Your task to perform on an android device: install app "Venmo" Image 0: 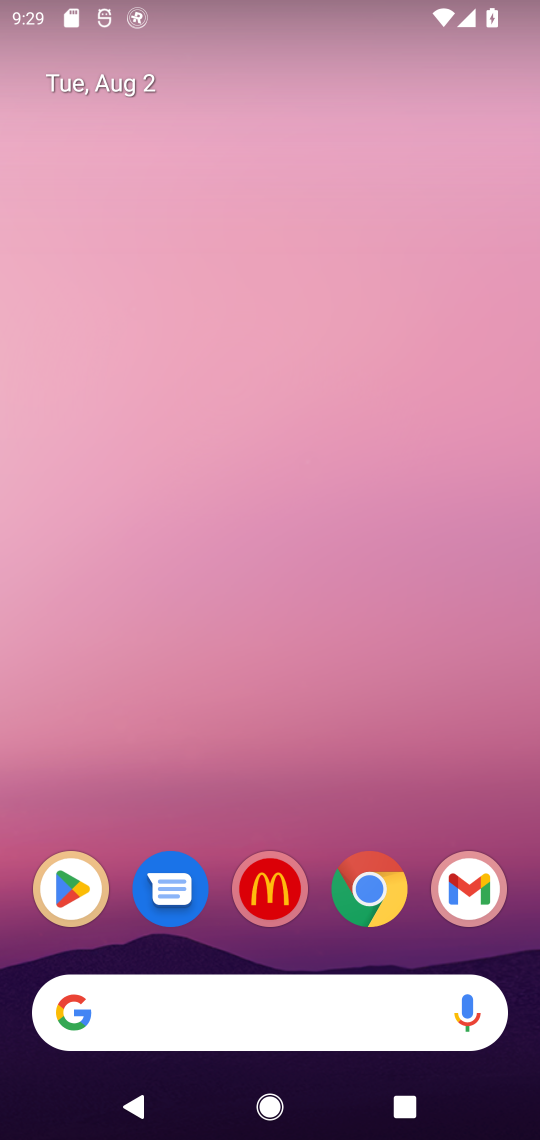
Step 0: press home button
Your task to perform on an android device: install app "Venmo" Image 1: 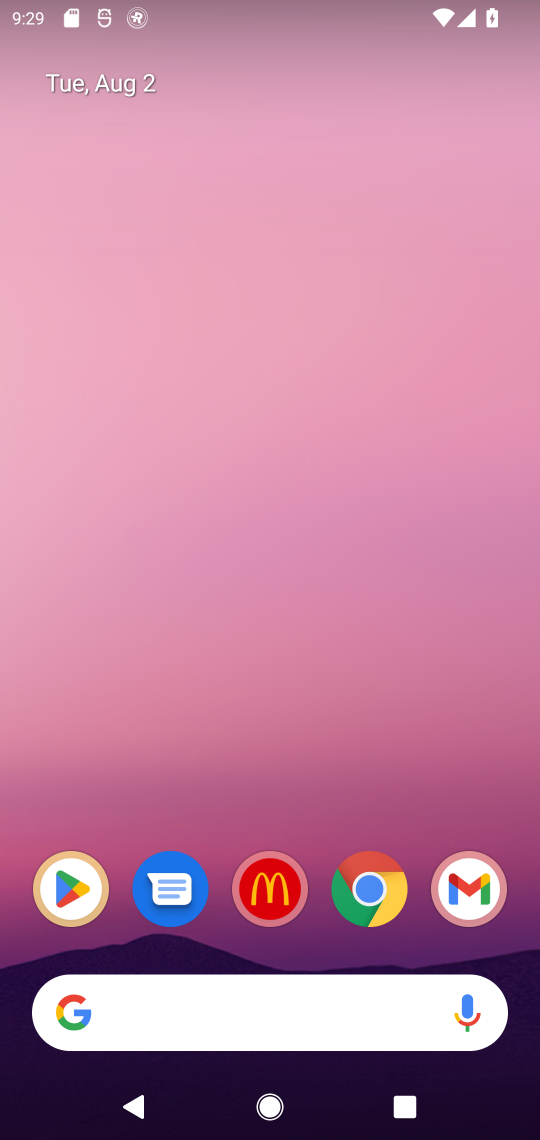
Step 1: click (62, 884)
Your task to perform on an android device: install app "Venmo" Image 2: 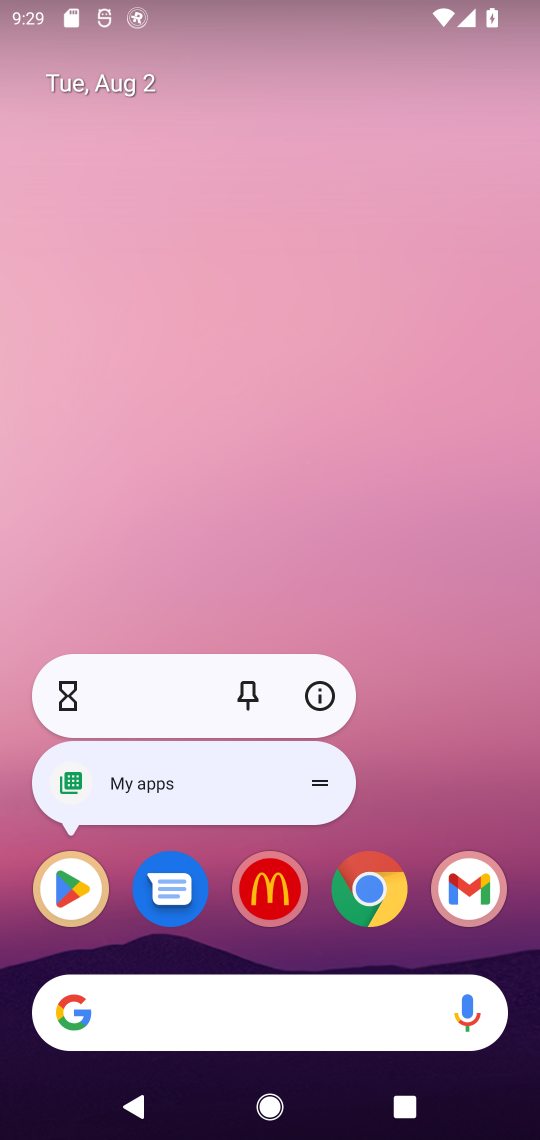
Step 2: click (69, 892)
Your task to perform on an android device: install app "Venmo" Image 3: 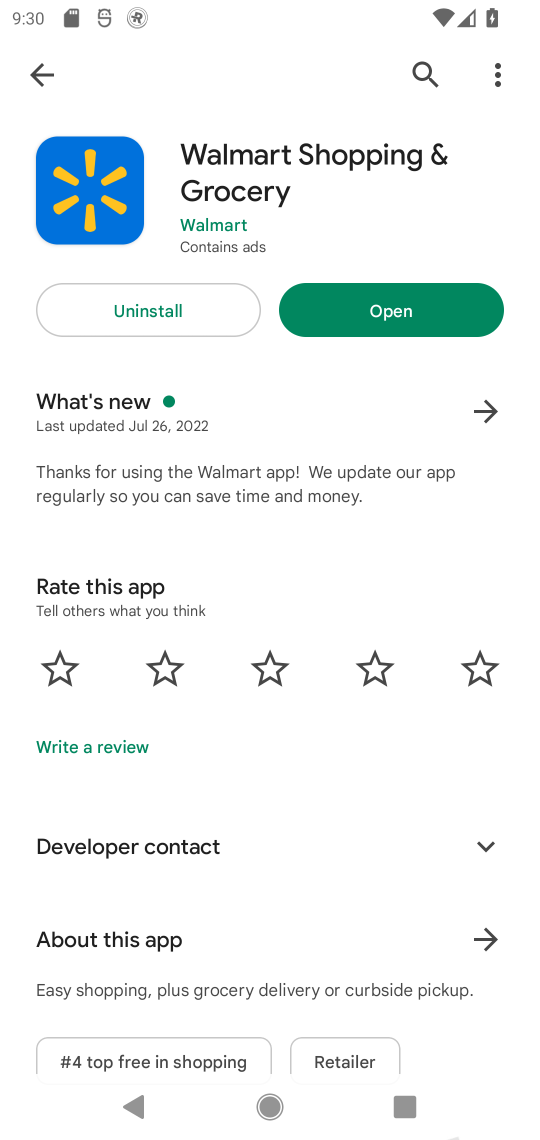
Step 3: click (421, 69)
Your task to perform on an android device: install app "Venmo" Image 4: 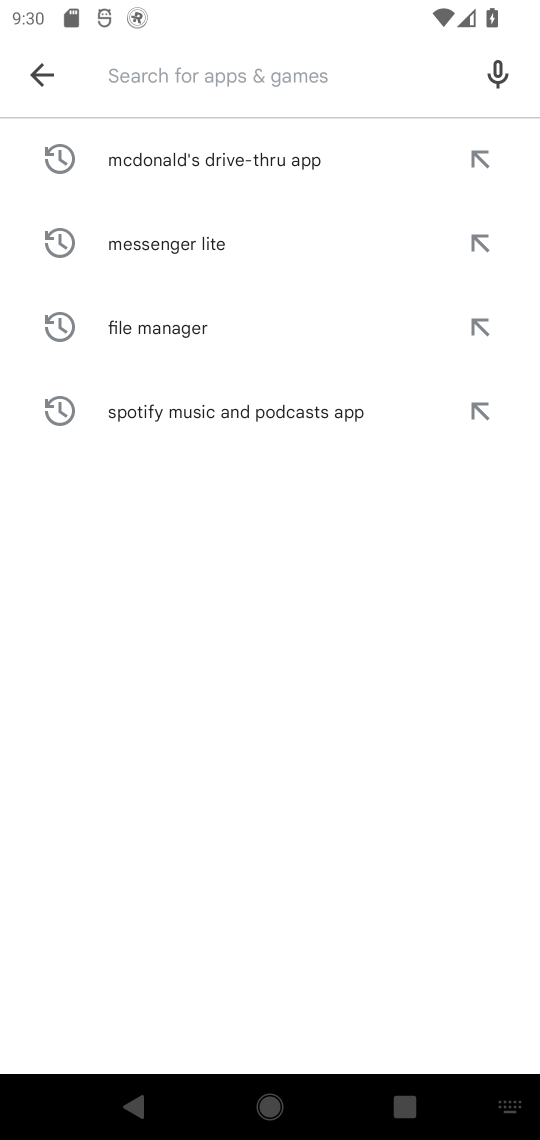
Step 4: type "Venmo"
Your task to perform on an android device: install app "Venmo" Image 5: 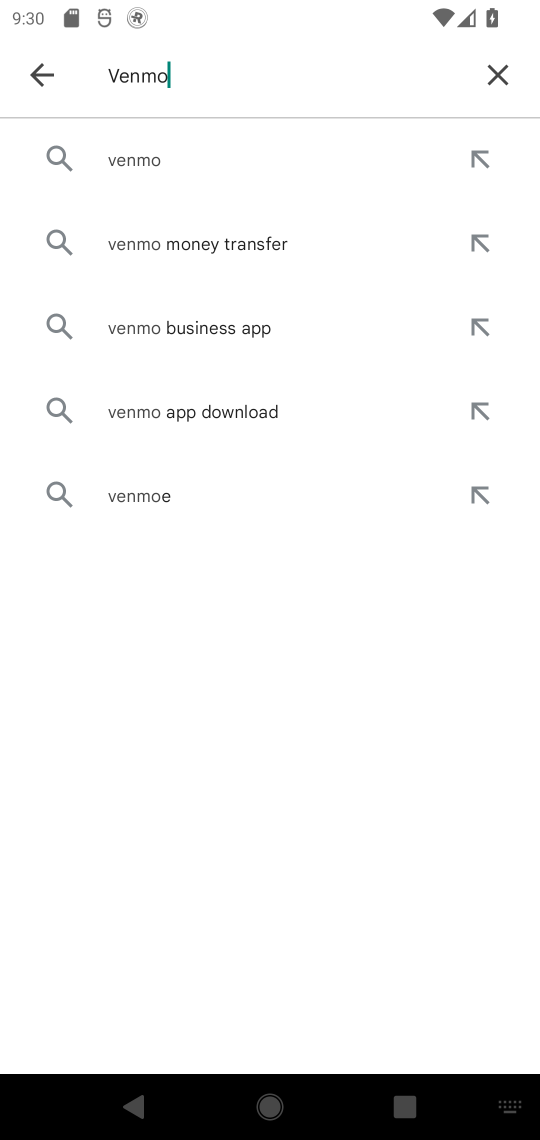
Step 5: click (166, 167)
Your task to perform on an android device: install app "Venmo" Image 6: 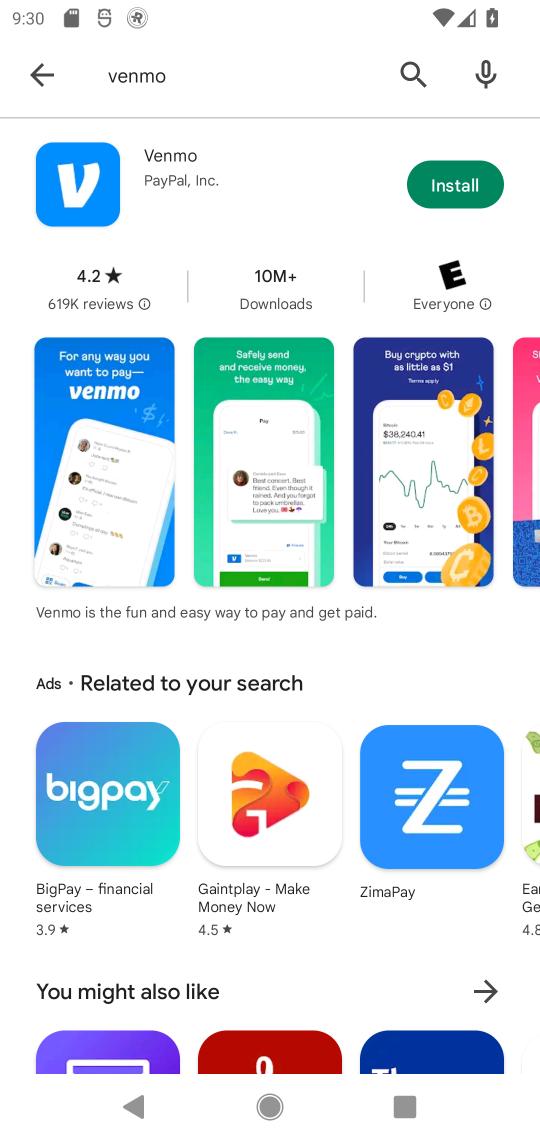
Step 6: click (454, 182)
Your task to perform on an android device: install app "Venmo" Image 7: 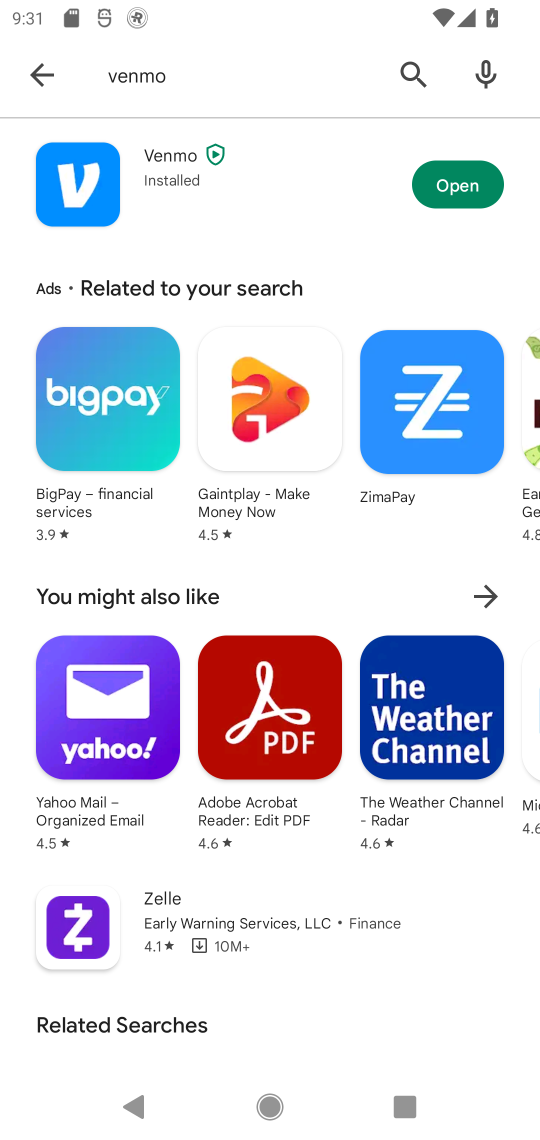
Step 7: task complete